Your task to perform on an android device: check out phone information Image 0: 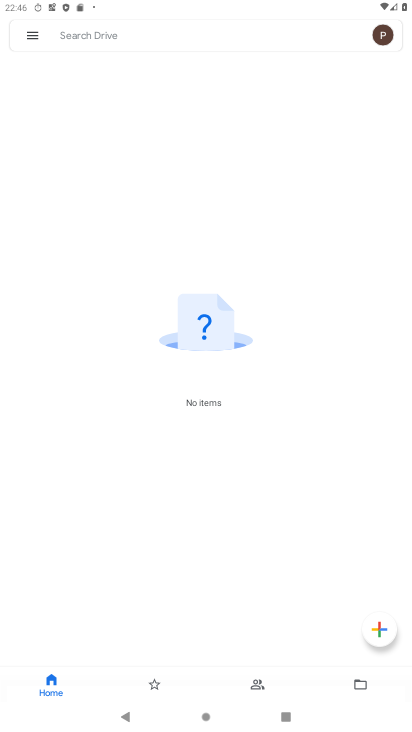
Step 0: press home button
Your task to perform on an android device: check out phone information Image 1: 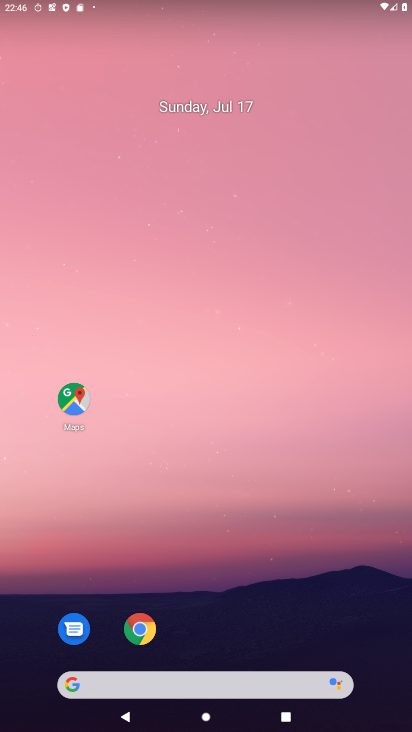
Step 1: drag from (224, 722) to (229, 66)
Your task to perform on an android device: check out phone information Image 2: 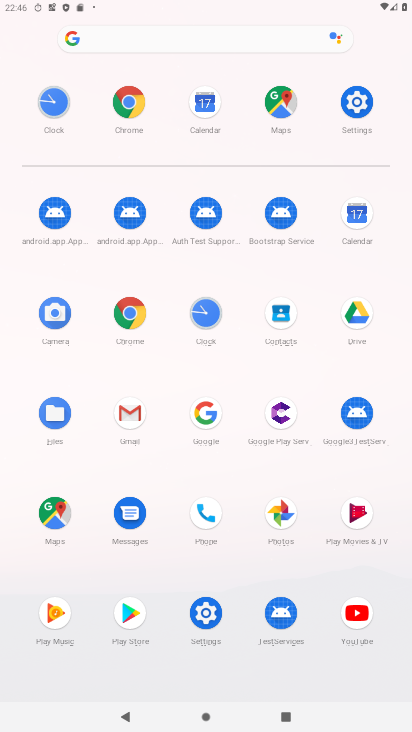
Step 2: click (350, 99)
Your task to perform on an android device: check out phone information Image 3: 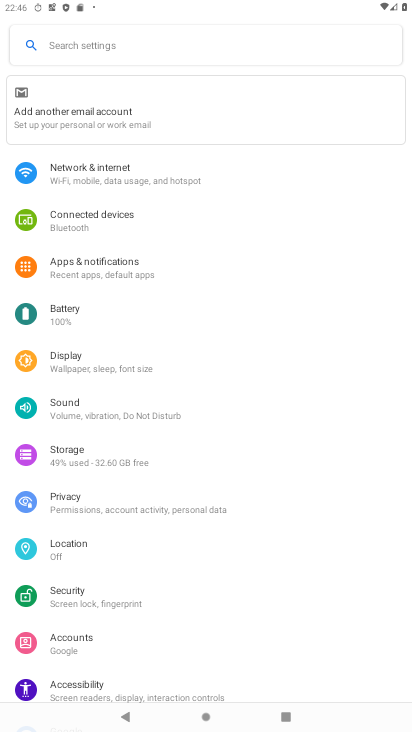
Step 3: drag from (194, 687) to (189, 229)
Your task to perform on an android device: check out phone information Image 4: 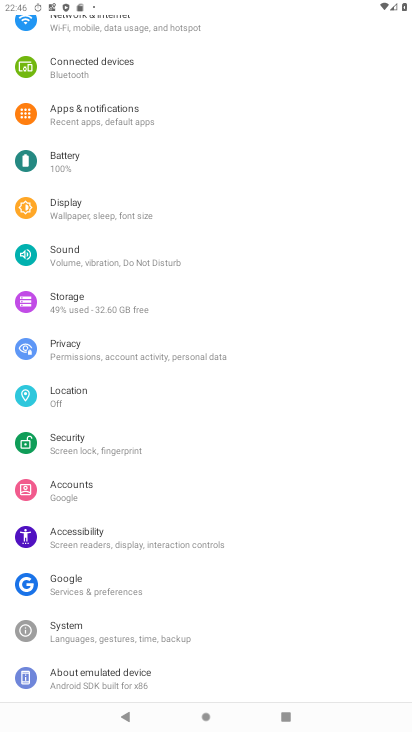
Step 4: click (110, 675)
Your task to perform on an android device: check out phone information Image 5: 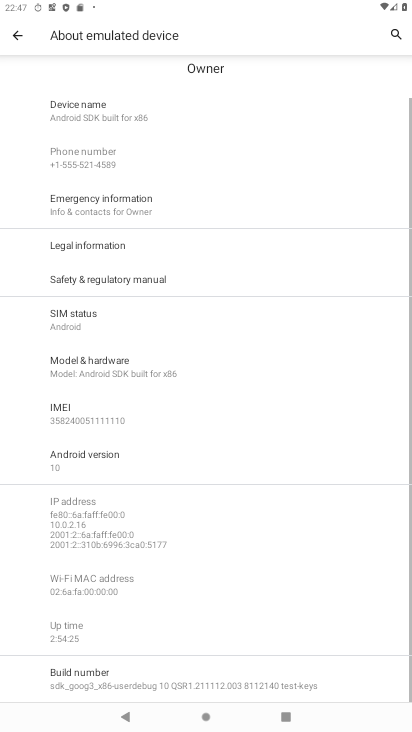
Step 5: task complete